Your task to perform on an android device: delete location history Image 0: 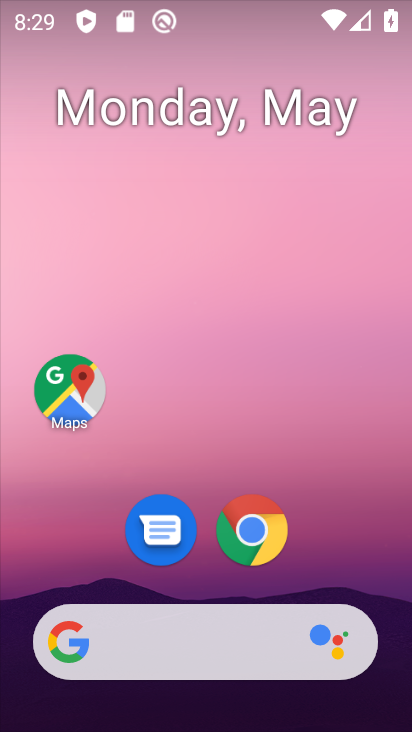
Step 0: click (77, 399)
Your task to perform on an android device: delete location history Image 1: 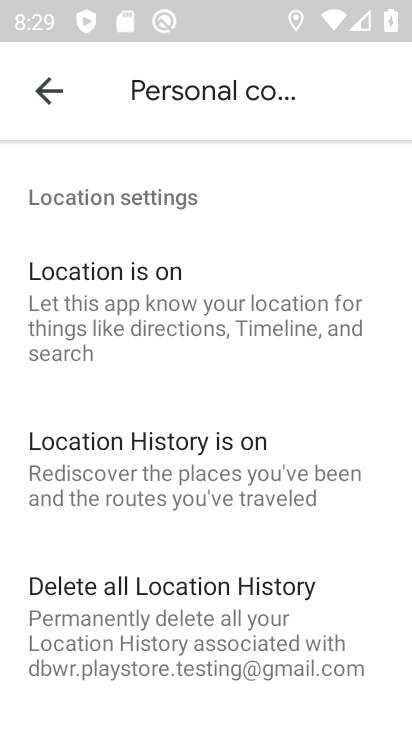
Step 1: click (142, 597)
Your task to perform on an android device: delete location history Image 2: 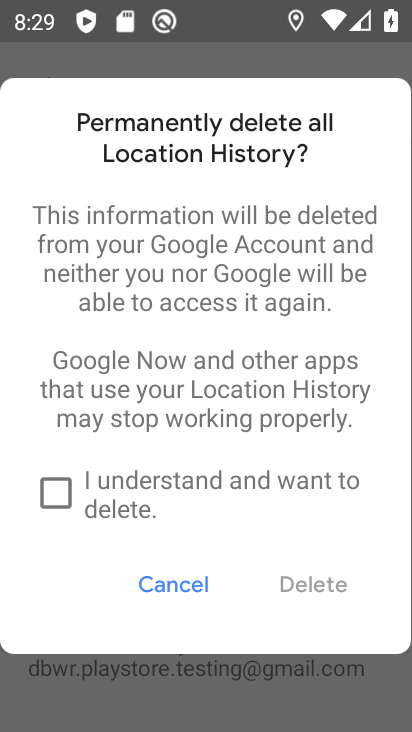
Step 2: click (130, 474)
Your task to perform on an android device: delete location history Image 3: 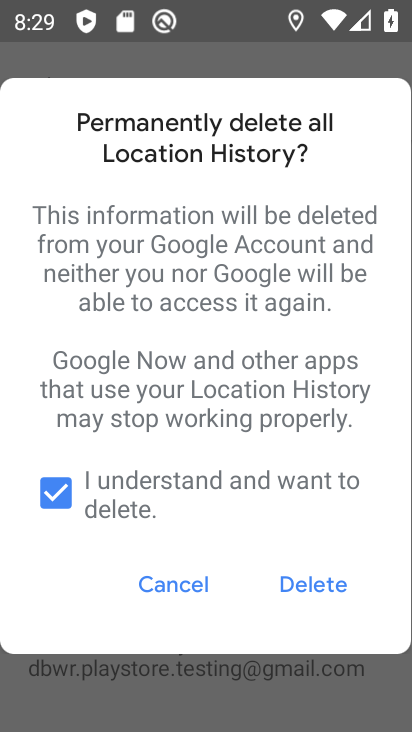
Step 3: click (294, 595)
Your task to perform on an android device: delete location history Image 4: 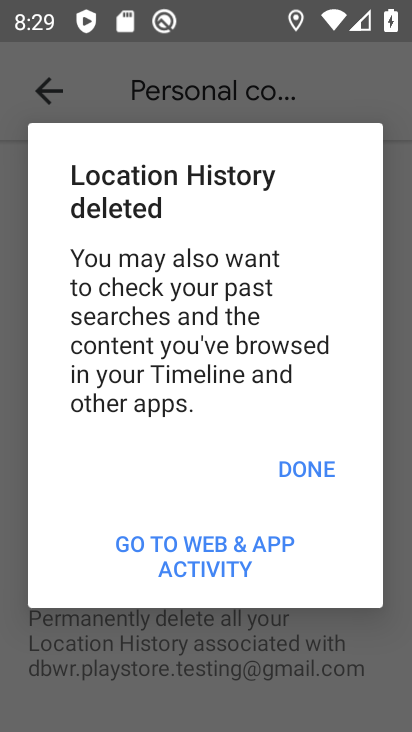
Step 4: click (311, 465)
Your task to perform on an android device: delete location history Image 5: 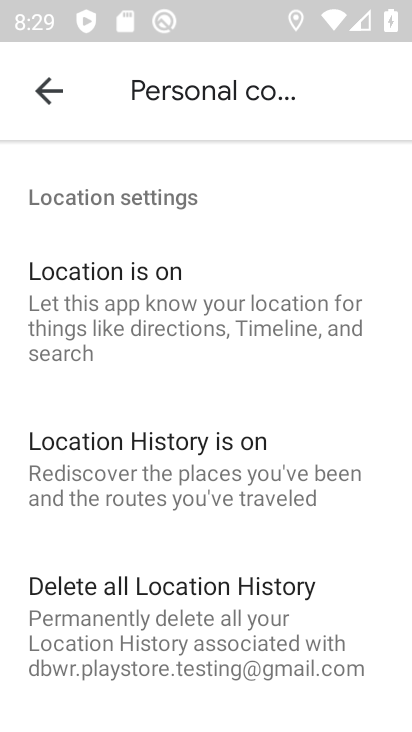
Step 5: task complete